Your task to perform on an android device: When is my next appointment? Image 0: 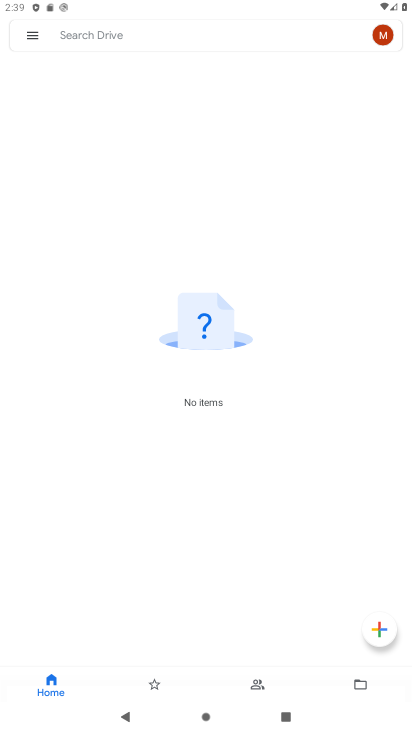
Step 0: press home button
Your task to perform on an android device: When is my next appointment? Image 1: 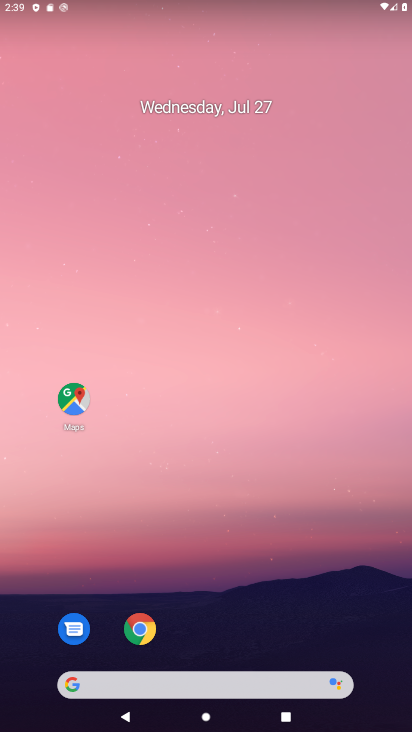
Step 1: drag from (312, 541) to (356, 238)
Your task to perform on an android device: When is my next appointment? Image 2: 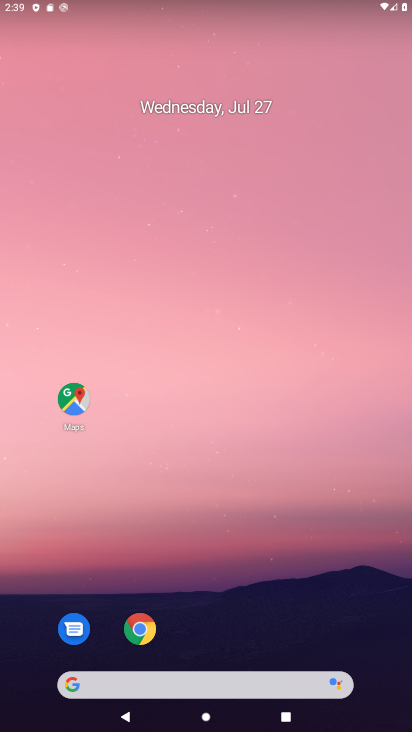
Step 2: drag from (318, 500) to (390, 168)
Your task to perform on an android device: When is my next appointment? Image 3: 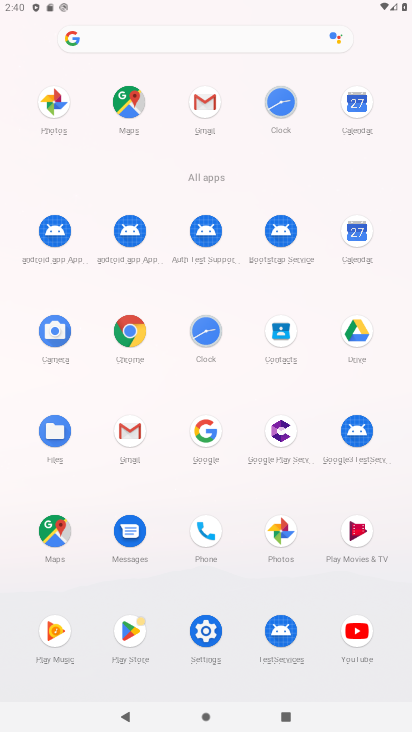
Step 3: click (359, 101)
Your task to perform on an android device: When is my next appointment? Image 4: 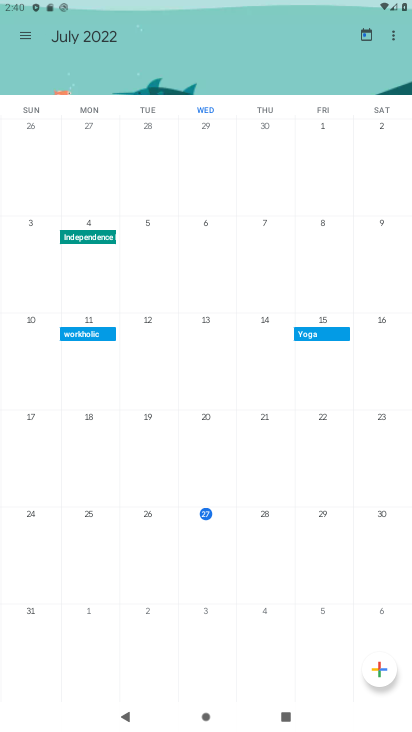
Step 4: task complete